Your task to perform on an android device: uninstall "Google Play Games" Image 0: 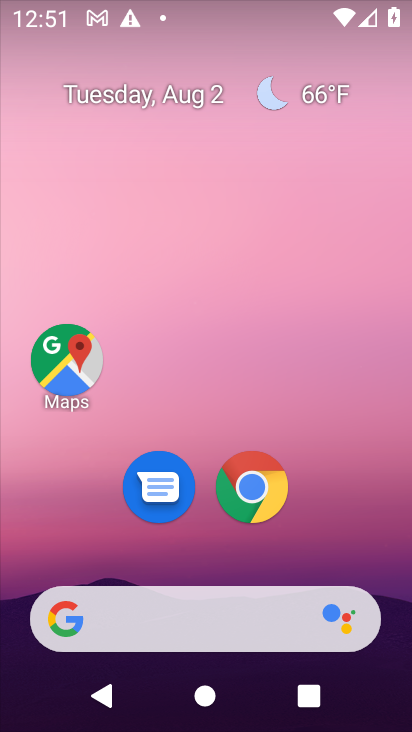
Step 0: drag from (247, 566) to (160, 80)
Your task to perform on an android device: uninstall "Google Play Games" Image 1: 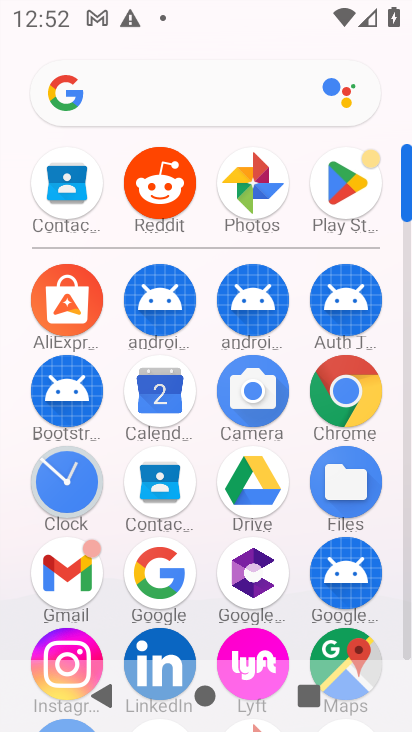
Step 1: click (338, 216)
Your task to perform on an android device: uninstall "Google Play Games" Image 2: 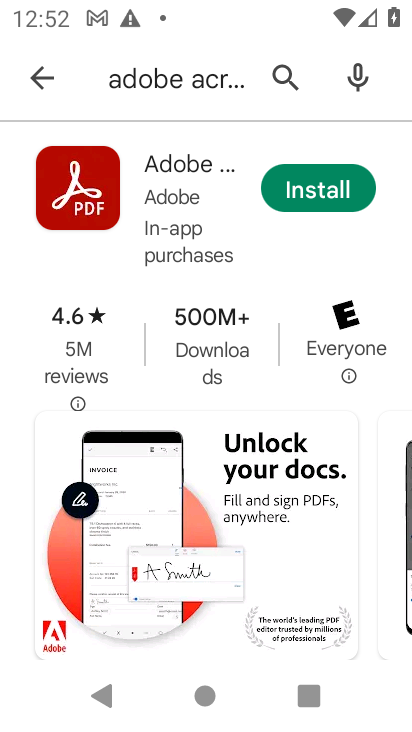
Step 2: click (51, 78)
Your task to perform on an android device: uninstall "Google Play Games" Image 3: 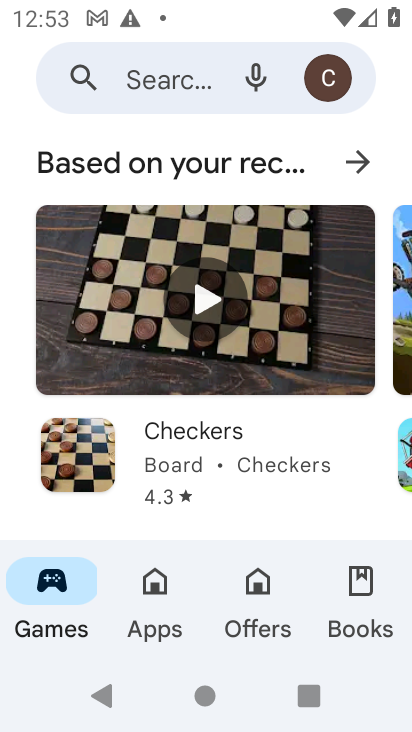
Step 3: click (139, 70)
Your task to perform on an android device: uninstall "Google Play Games" Image 4: 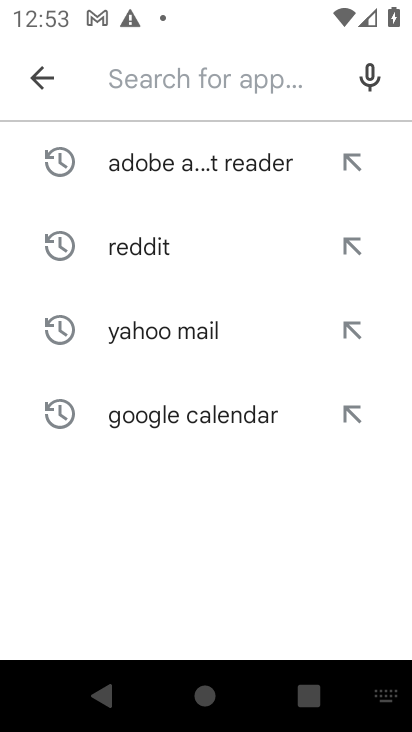
Step 4: type "Google Play Games"
Your task to perform on an android device: uninstall "Google Play Games" Image 5: 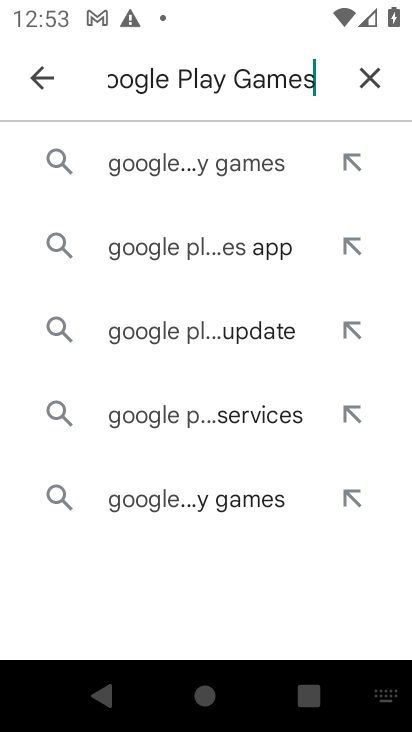
Step 5: click (216, 165)
Your task to perform on an android device: uninstall "Google Play Games" Image 6: 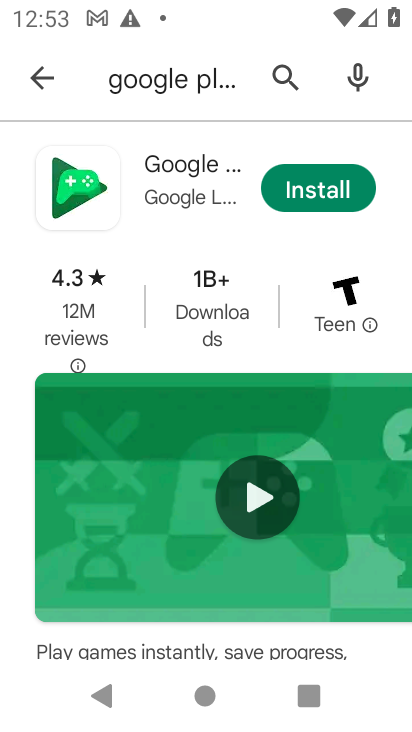
Step 6: task complete